Your task to perform on an android device: Open Chrome and go to the settings page Image 0: 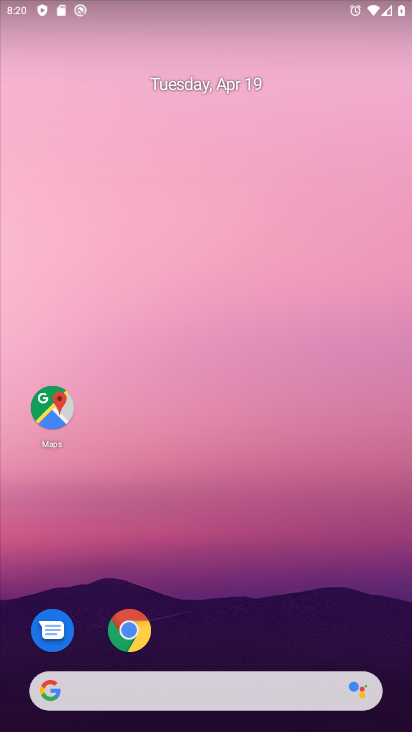
Step 0: click (134, 637)
Your task to perform on an android device: Open Chrome and go to the settings page Image 1: 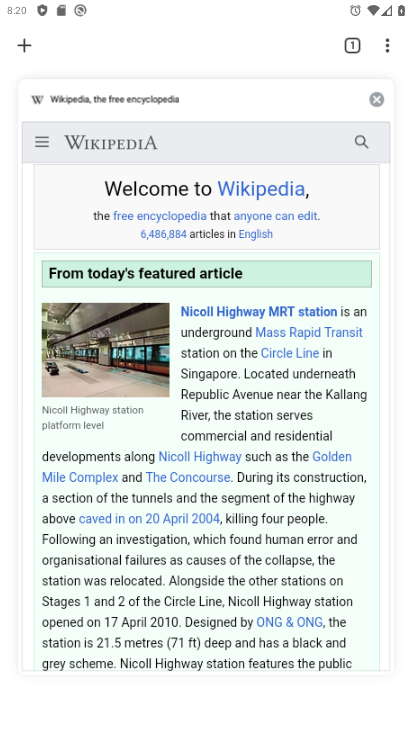
Step 1: click (386, 48)
Your task to perform on an android device: Open Chrome and go to the settings page Image 2: 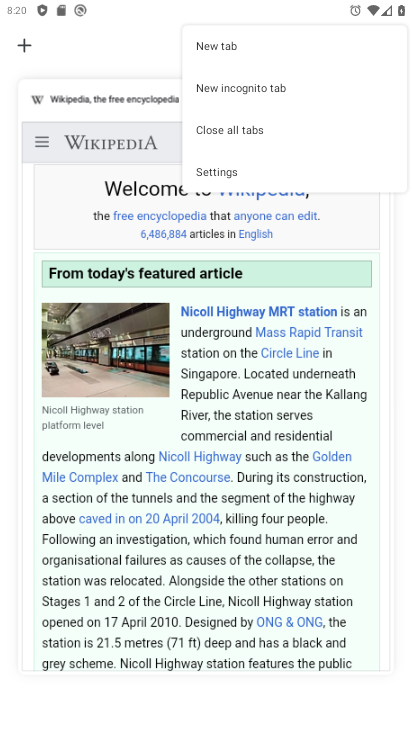
Step 2: click (259, 173)
Your task to perform on an android device: Open Chrome and go to the settings page Image 3: 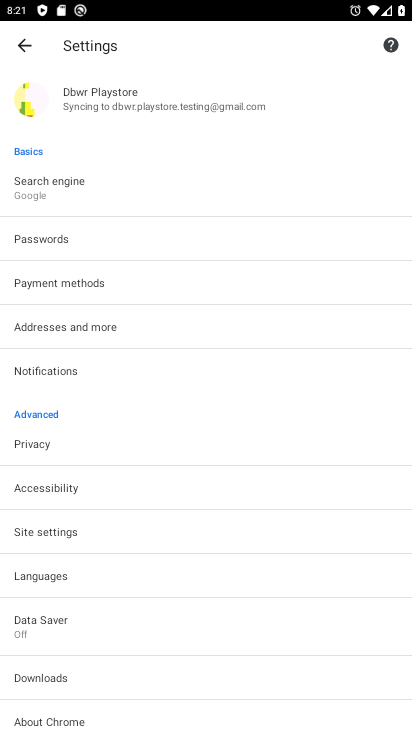
Step 3: task complete